Your task to perform on an android device: change your default location settings in chrome Image 0: 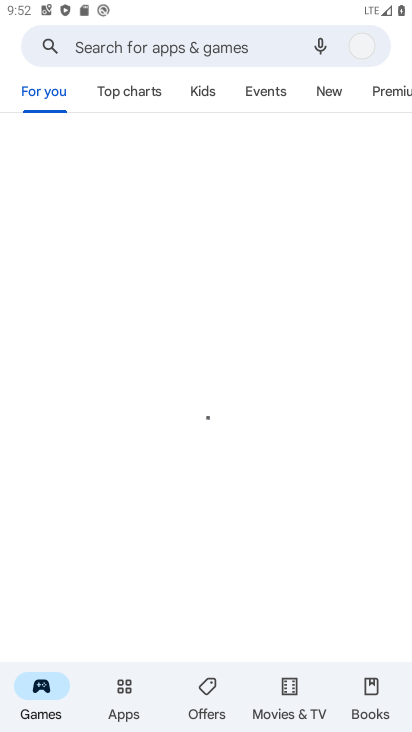
Step 0: press home button
Your task to perform on an android device: change your default location settings in chrome Image 1: 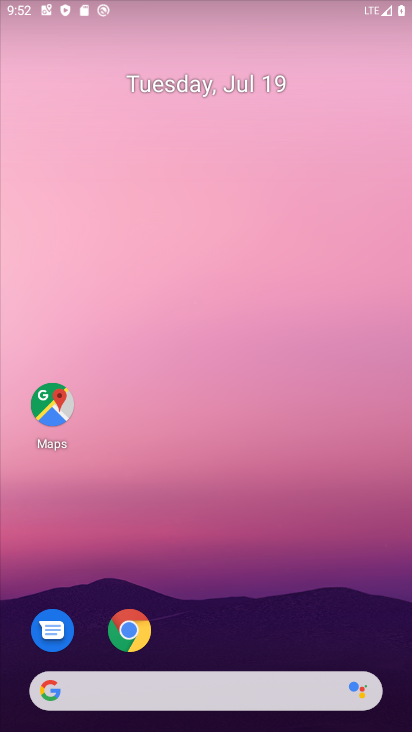
Step 1: drag from (208, 650) to (181, 103)
Your task to perform on an android device: change your default location settings in chrome Image 2: 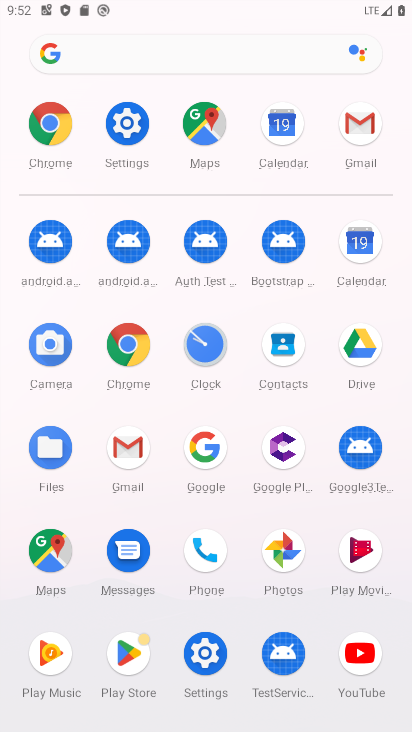
Step 2: click (125, 352)
Your task to perform on an android device: change your default location settings in chrome Image 3: 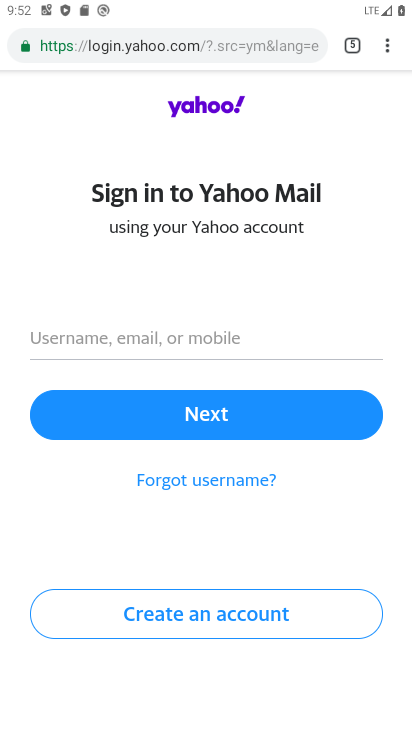
Step 3: click (380, 38)
Your task to perform on an android device: change your default location settings in chrome Image 4: 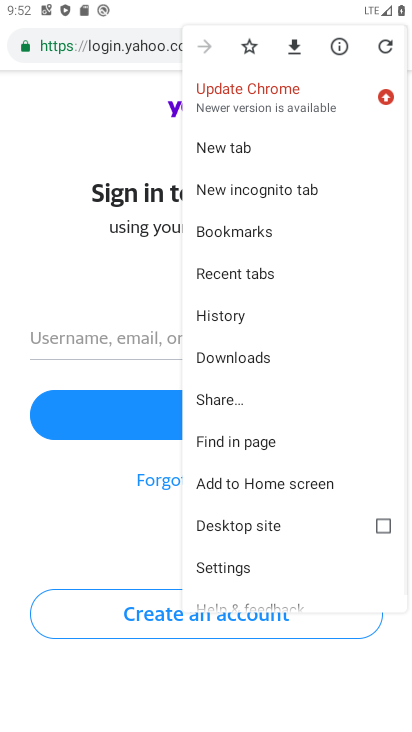
Step 4: click (221, 553)
Your task to perform on an android device: change your default location settings in chrome Image 5: 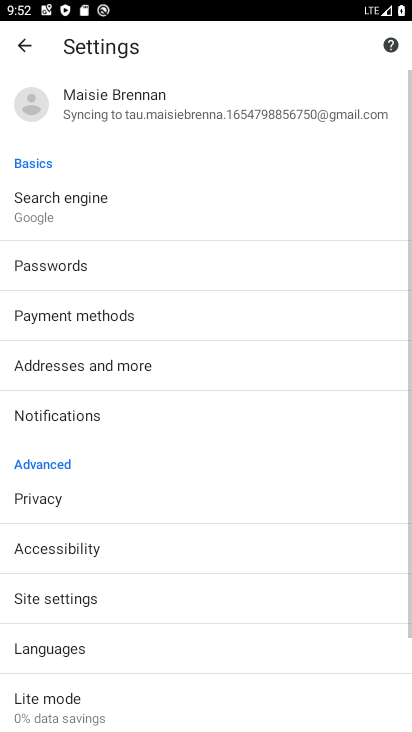
Step 5: click (62, 214)
Your task to perform on an android device: change your default location settings in chrome Image 6: 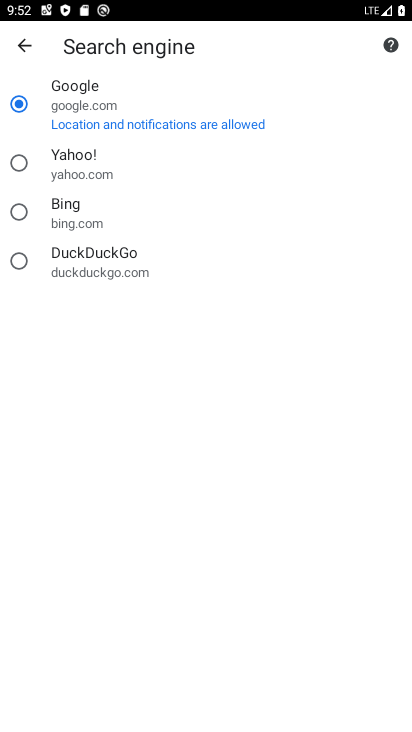
Step 6: click (22, 161)
Your task to perform on an android device: change your default location settings in chrome Image 7: 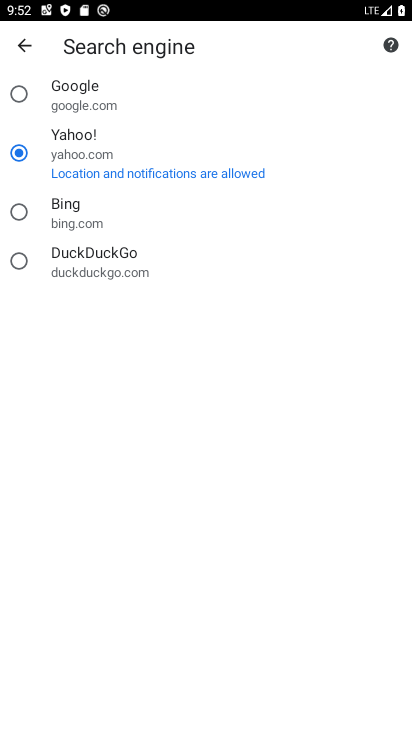
Step 7: task complete